Your task to perform on an android device: allow notifications from all sites in the chrome app Image 0: 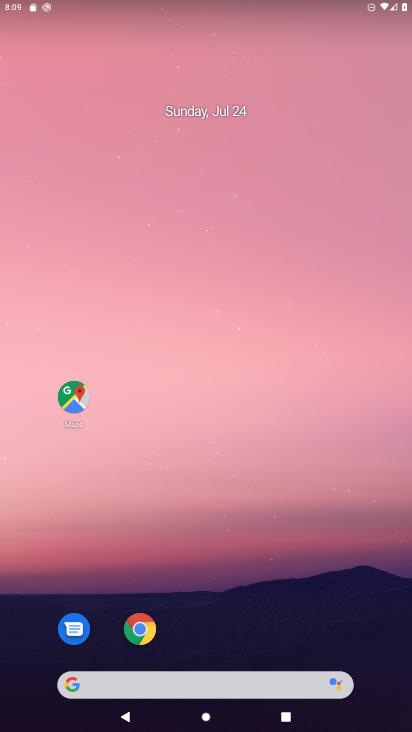
Step 0: drag from (370, 635) to (224, 73)
Your task to perform on an android device: allow notifications from all sites in the chrome app Image 1: 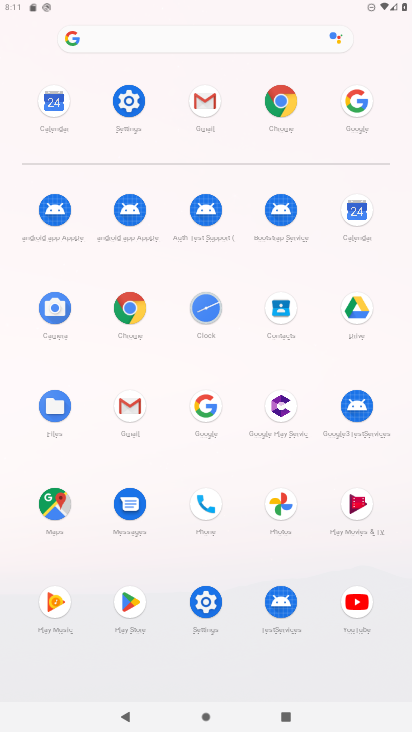
Step 1: click (138, 300)
Your task to perform on an android device: allow notifications from all sites in the chrome app Image 2: 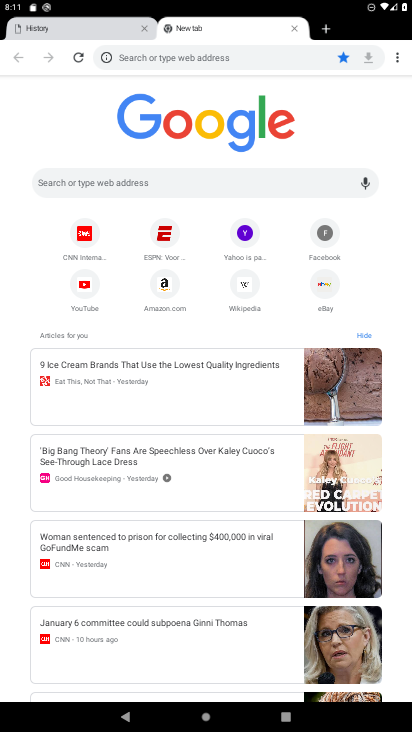
Step 2: click (397, 56)
Your task to perform on an android device: allow notifications from all sites in the chrome app Image 3: 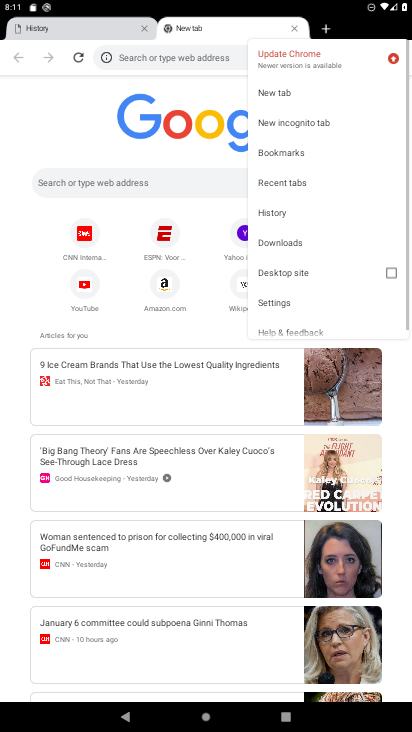
Step 3: click (294, 297)
Your task to perform on an android device: allow notifications from all sites in the chrome app Image 4: 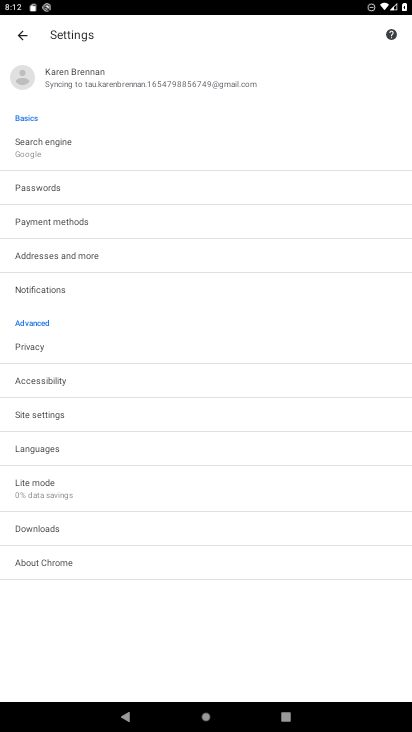
Step 4: click (79, 299)
Your task to perform on an android device: allow notifications from all sites in the chrome app Image 5: 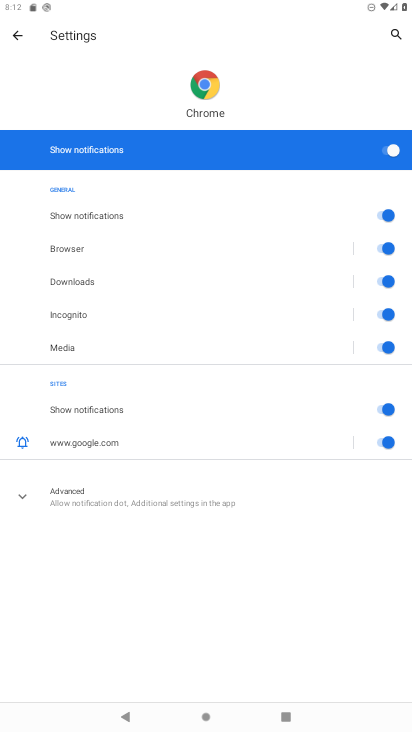
Step 5: task complete